Your task to perform on an android device: Open Chrome and go to settings Image 0: 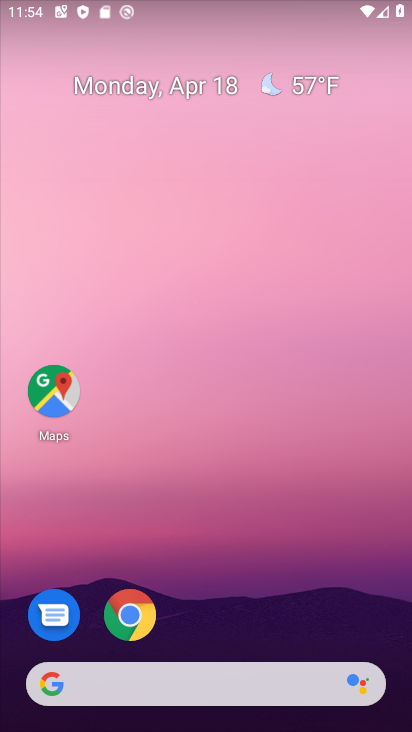
Step 0: click (145, 620)
Your task to perform on an android device: Open Chrome and go to settings Image 1: 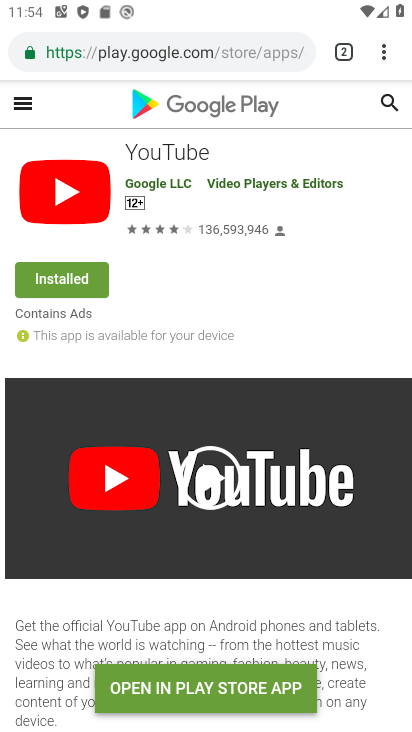
Step 1: click (385, 53)
Your task to perform on an android device: Open Chrome and go to settings Image 2: 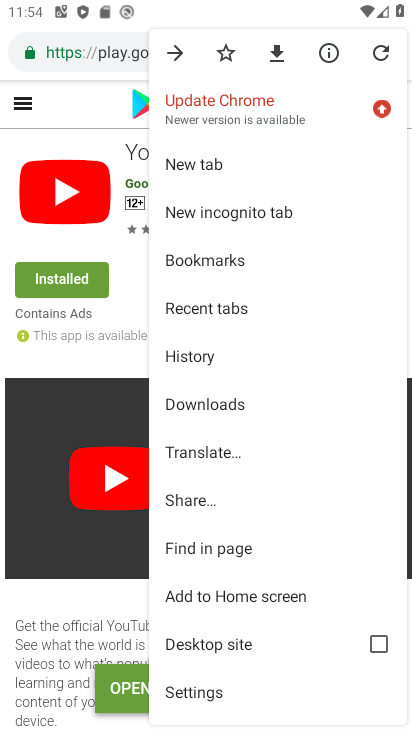
Step 2: click (240, 687)
Your task to perform on an android device: Open Chrome and go to settings Image 3: 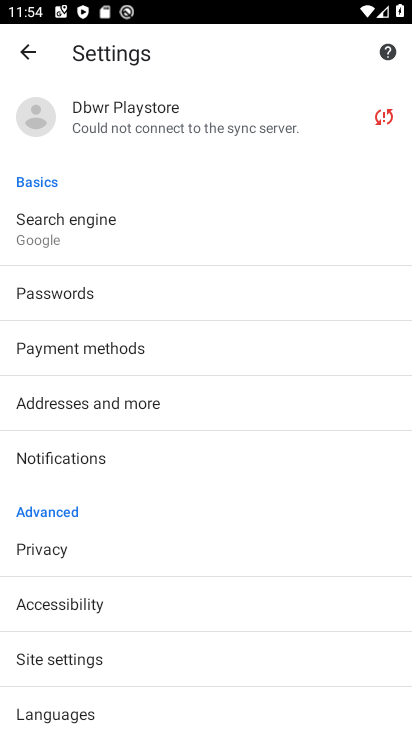
Step 3: task complete